Your task to perform on an android device: What's the weather today? Image 0: 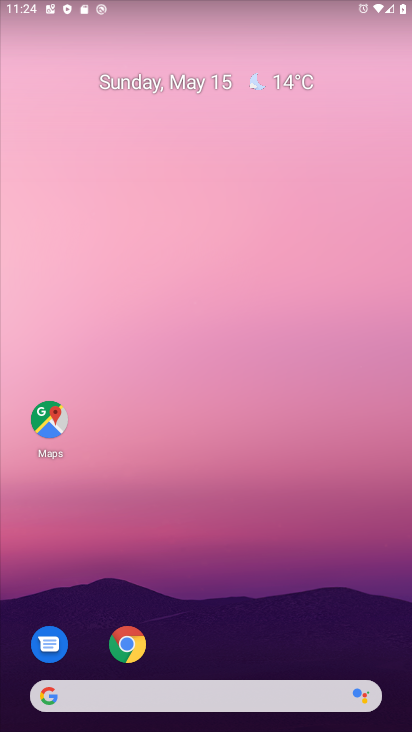
Step 0: click (286, 75)
Your task to perform on an android device: What's the weather today? Image 1: 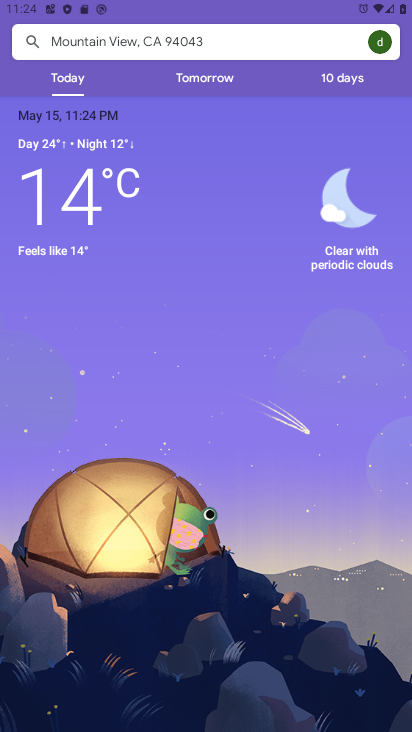
Step 1: task complete